Your task to perform on an android device: Open Wikipedia Image 0: 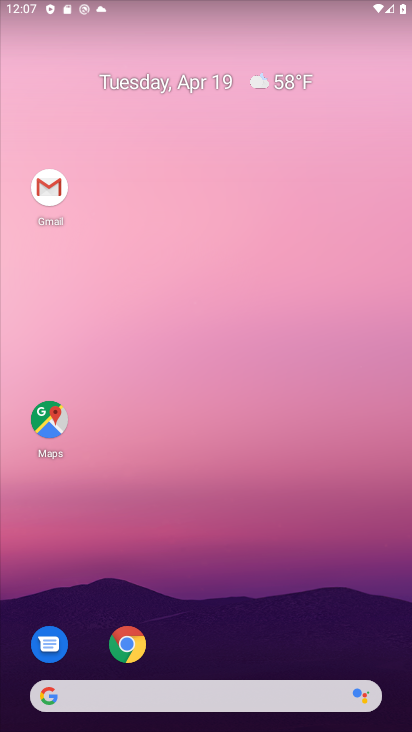
Step 0: click (126, 647)
Your task to perform on an android device: Open Wikipedia Image 1: 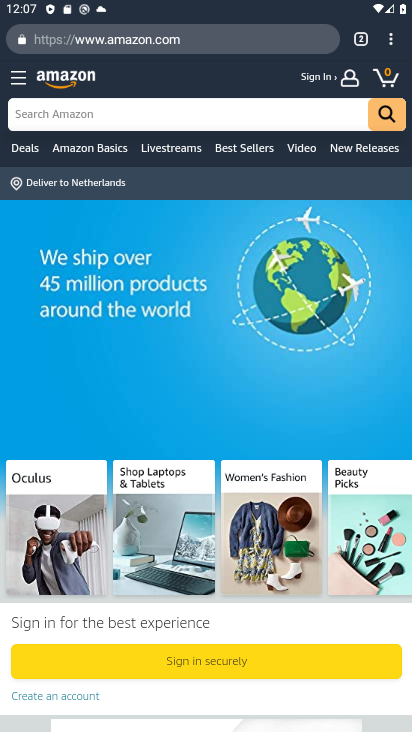
Step 1: click (364, 39)
Your task to perform on an android device: Open Wikipedia Image 2: 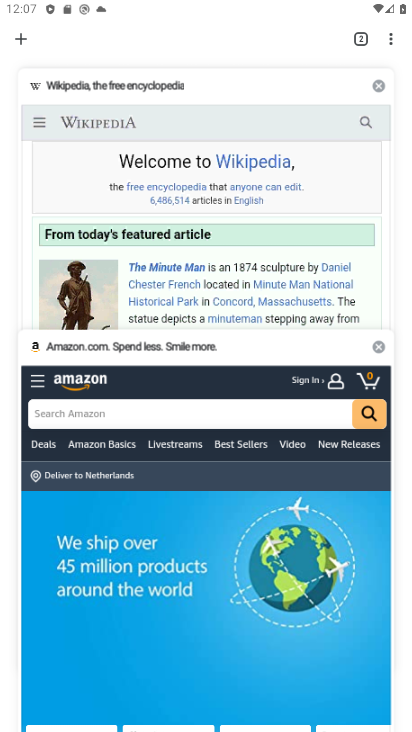
Step 2: click (26, 43)
Your task to perform on an android device: Open Wikipedia Image 3: 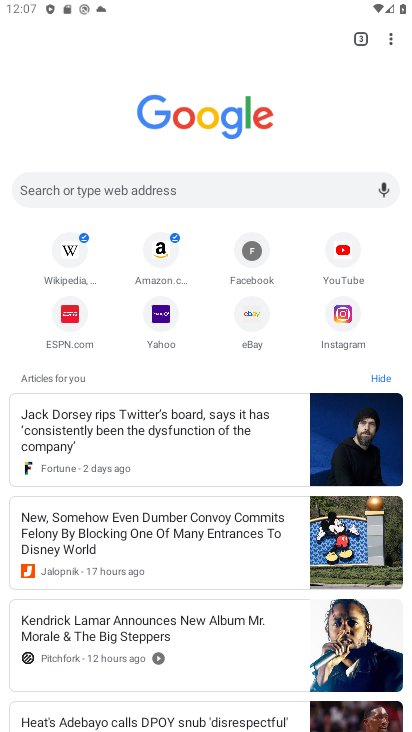
Step 3: click (68, 251)
Your task to perform on an android device: Open Wikipedia Image 4: 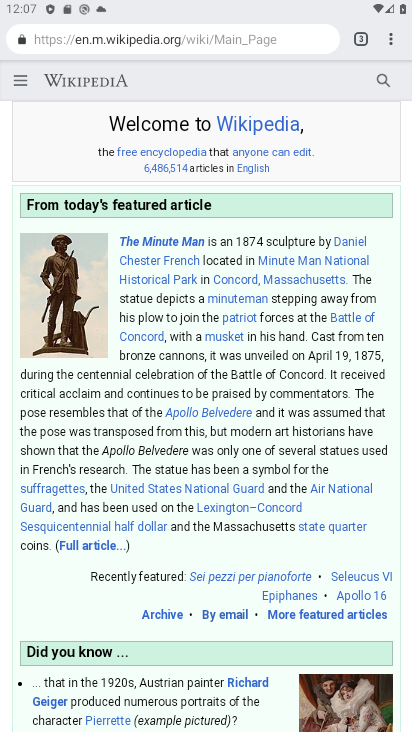
Step 4: task complete